Your task to perform on an android device: turn off notifications settings in the gmail app Image 0: 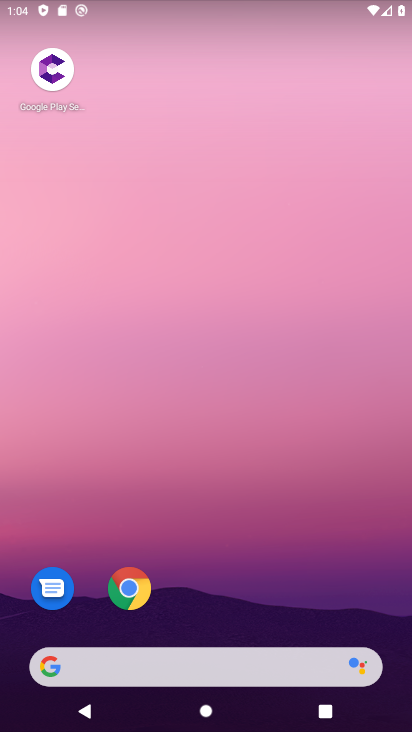
Step 0: drag from (198, 592) to (226, 259)
Your task to perform on an android device: turn off notifications settings in the gmail app Image 1: 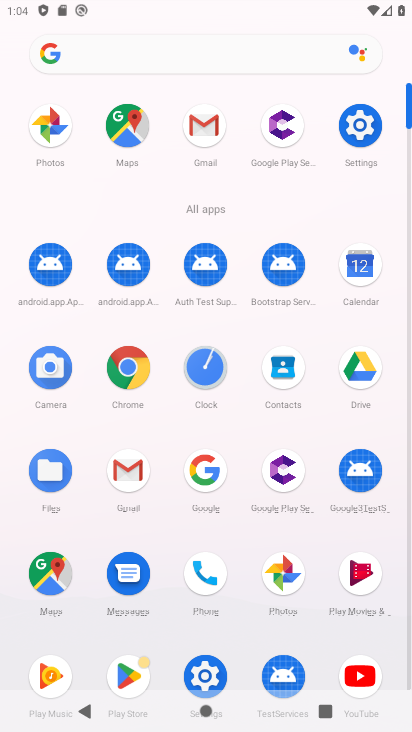
Step 1: click (131, 462)
Your task to perform on an android device: turn off notifications settings in the gmail app Image 2: 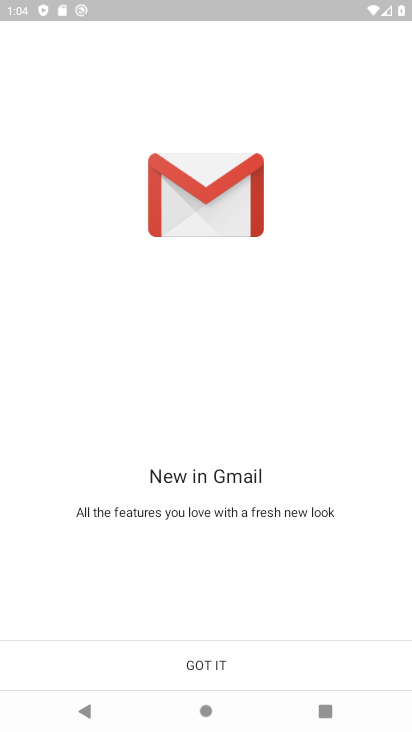
Step 2: drag from (209, 598) to (328, 211)
Your task to perform on an android device: turn off notifications settings in the gmail app Image 3: 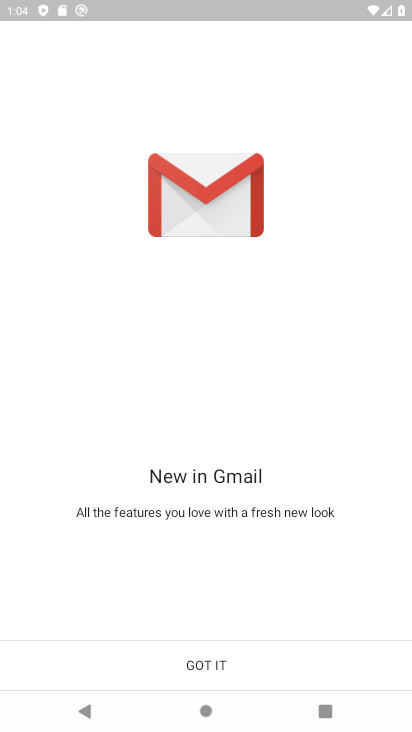
Step 3: click (186, 656)
Your task to perform on an android device: turn off notifications settings in the gmail app Image 4: 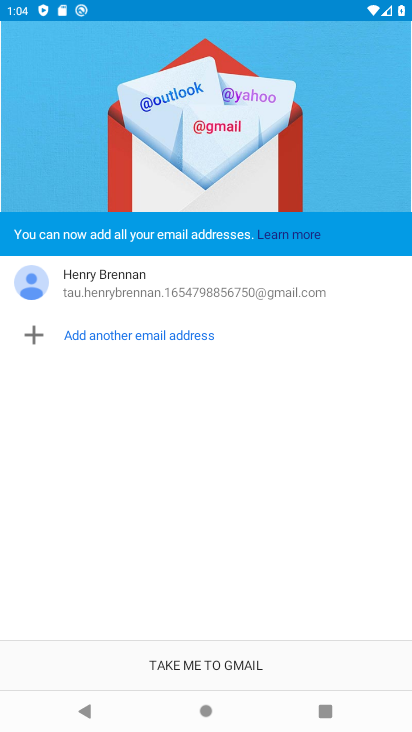
Step 4: click (159, 659)
Your task to perform on an android device: turn off notifications settings in the gmail app Image 5: 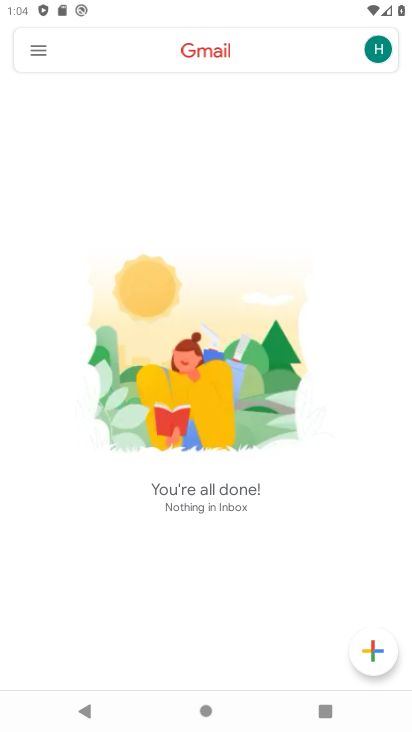
Step 5: drag from (209, 643) to (359, 287)
Your task to perform on an android device: turn off notifications settings in the gmail app Image 6: 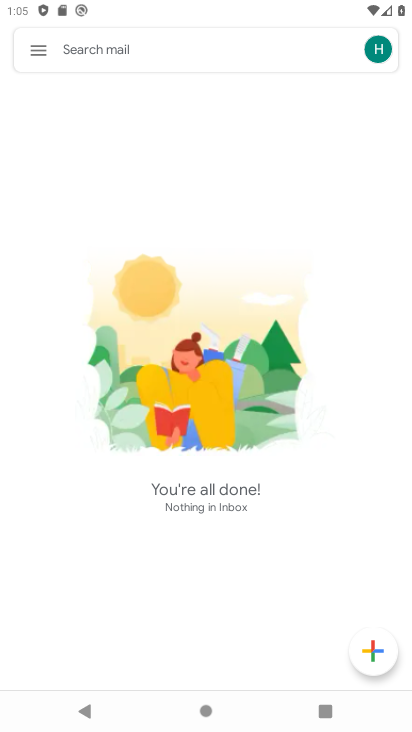
Step 6: click (39, 47)
Your task to perform on an android device: turn off notifications settings in the gmail app Image 7: 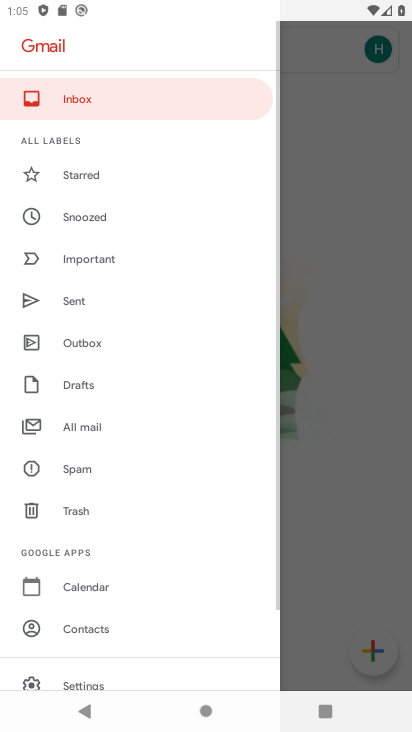
Step 7: click (324, 542)
Your task to perform on an android device: turn off notifications settings in the gmail app Image 8: 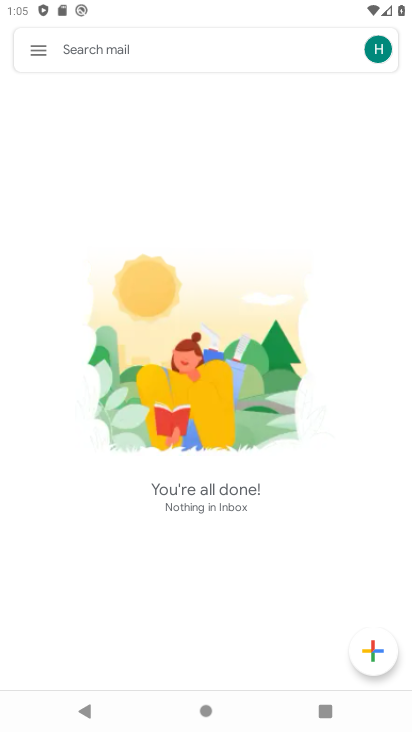
Step 8: click (42, 43)
Your task to perform on an android device: turn off notifications settings in the gmail app Image 9: 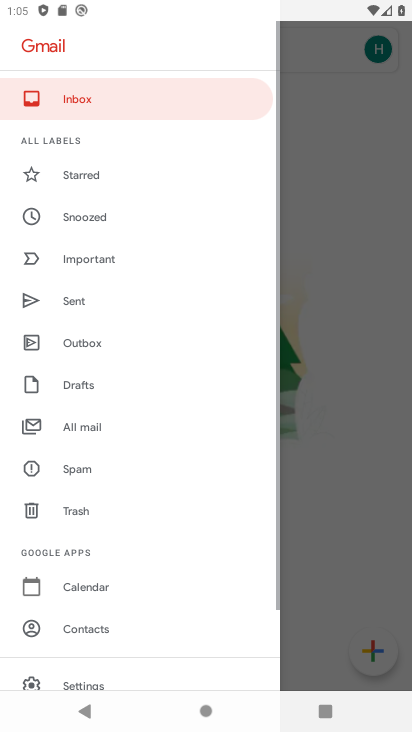
Step 9: drag from (119, 611) to (154, 172)
Your task to perform on an android device: turn off notifications settings in the gmail app Image 10: 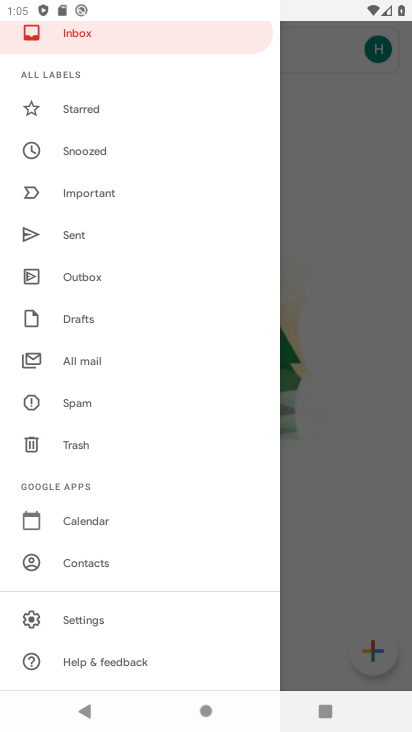
Step 10: click (79, 624)
Your task to perform on an android device: turn off notifications settings in the gmail app Image 11: 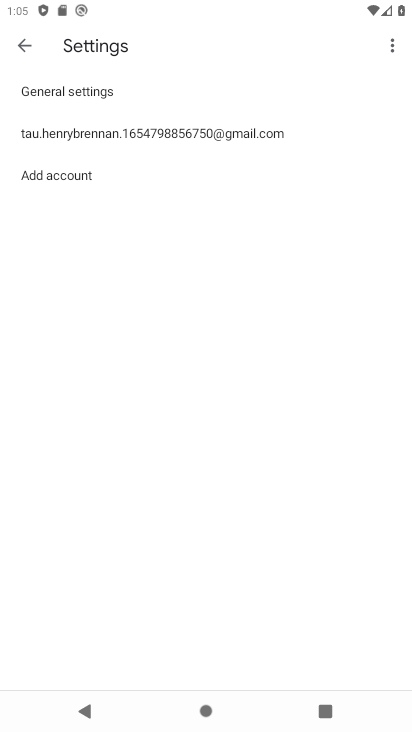
Step 11: drag from (89, 517) to (132, 226)
Your task to perform on an android device: turn off notifications settings in the gmail app Image 12: 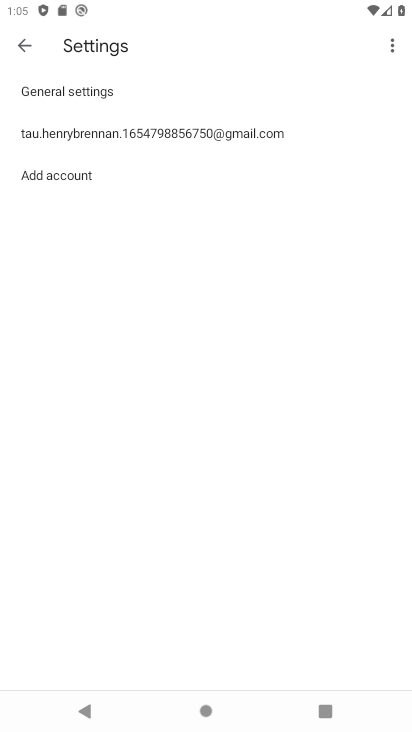
Step 12: click (117, 139)
Your task to perform on an android device: turn off notifications settings in the gmail app Image 13: 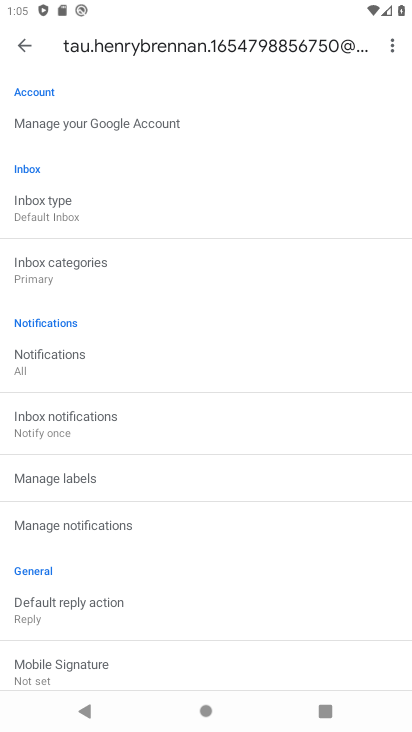
Step 13: click (81, 527)
Your task to perform on an android device: turn off notifications settings in the gmail app Image 14: 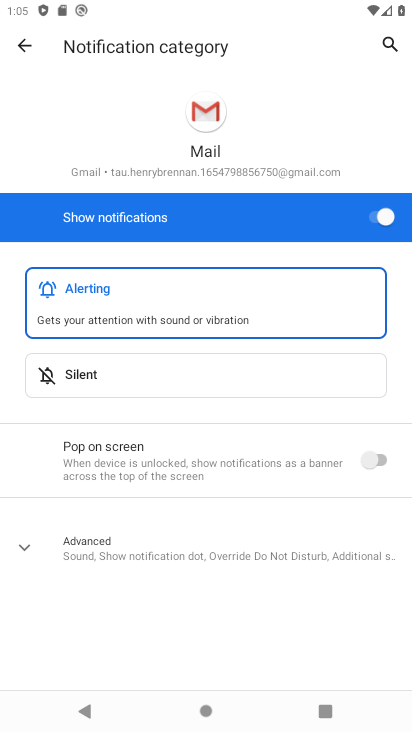
Step 14: drag from (158, 502) to (241, 230)
Your task to perform on an android device: turn off notifications settings in the gmail app Image 15: 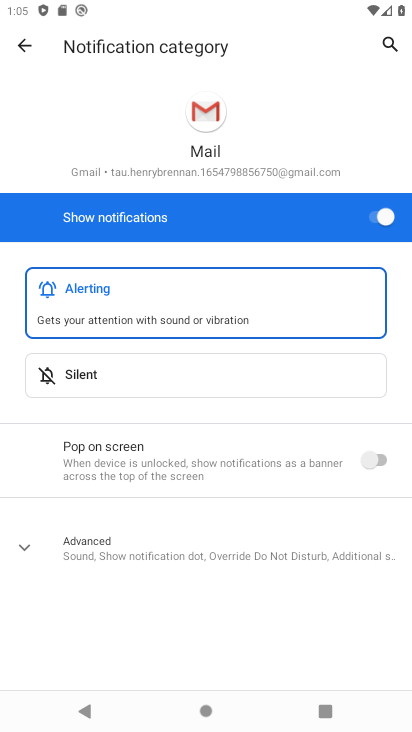
Step 15: click (98, 558)
Your task to perform on an android device: turn off notifications settings in the gmail app Image 16: 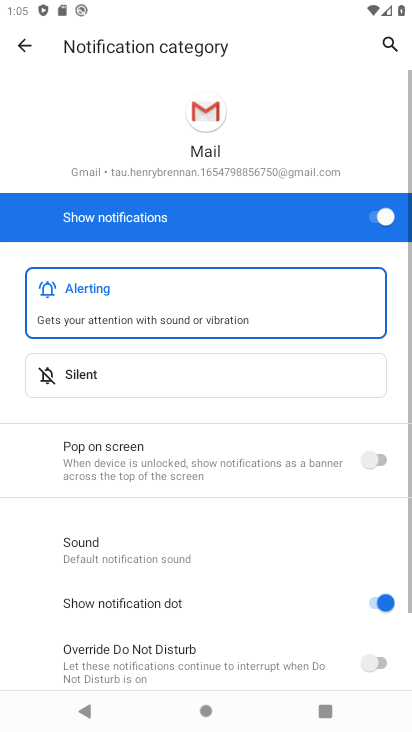
Step 16: drag from (207, 621) to (277, 225)
Your task to perform on an android device: turn off notifications settings in the gmail app Image 17: 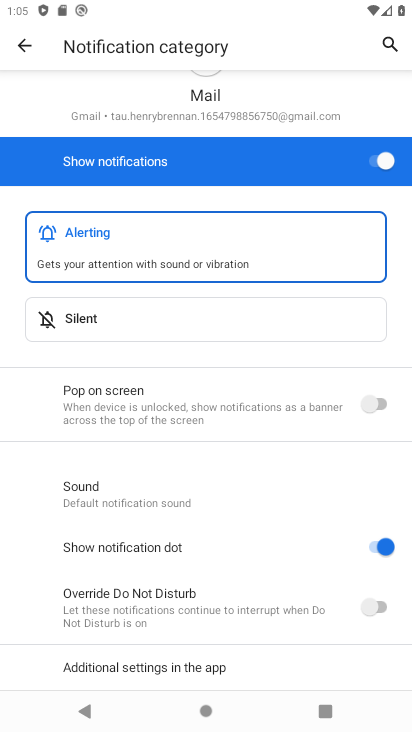
Step 17: click (371, 167)
Your task to perform on an android device: turn off notifications settings in the gmail app Image 18: 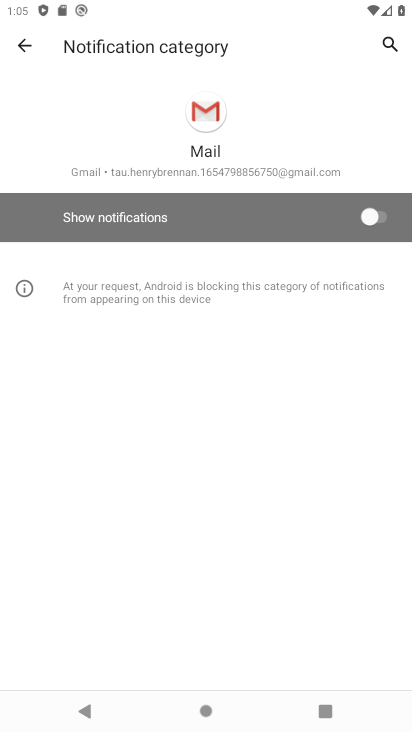
Step 18: task complete